Your task to perform on an android device: Go to wifi settings Image 0: 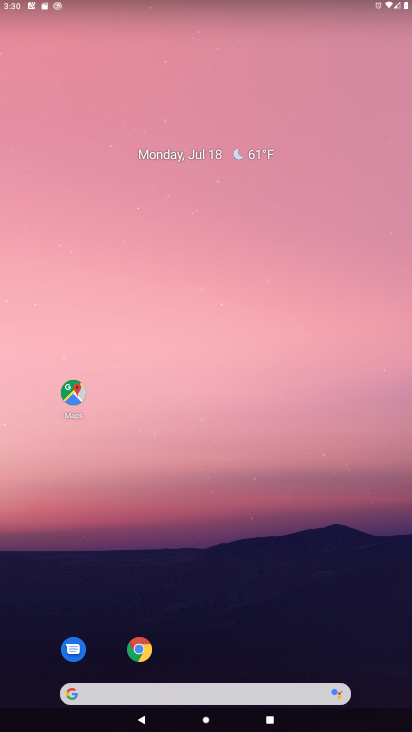
Step 0: press home button
Your task to perform on an android device: Go to wifi settings Image 1: 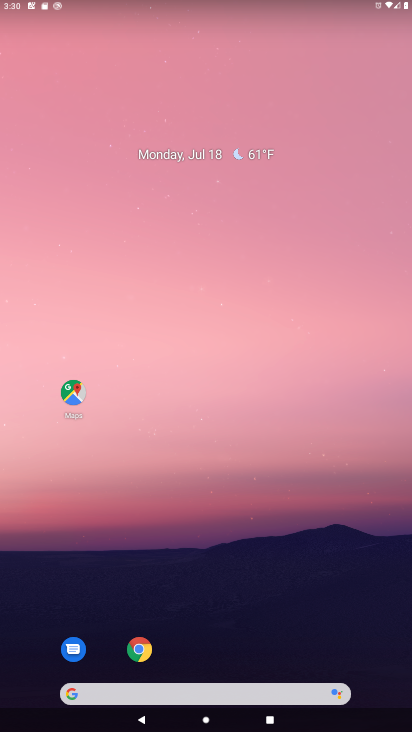
Step 1: drag from (253, 603) to (317, 59)
Your task to perform on an android device: Go to wifi settings Image 2: 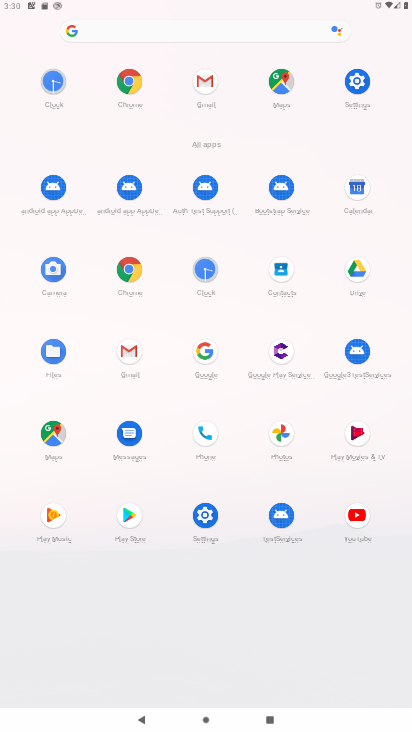
Step 2: click (357, 75)
Your task to perform on an android device: Go to wifi settings Image 3: 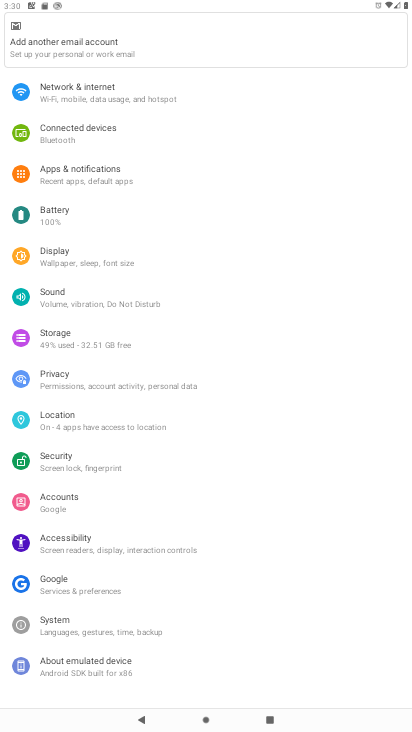
Step 3: click (189, 98)
Your task to perform on an android device: Go to wifi settings Image 4: 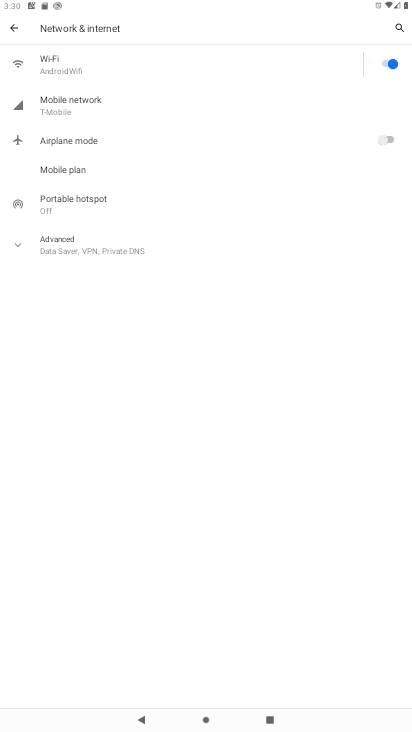
Step 4: click (146, 66)
Your task to perform on an android device: Go to wifi settings Image 5: 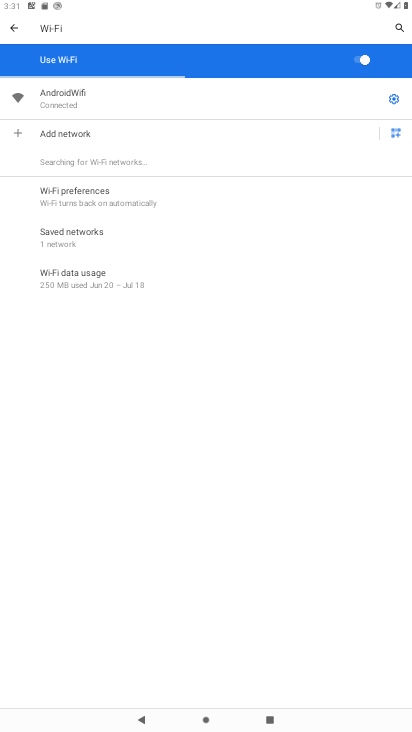
Step 5: task complete